Your task to perform on an android device: toggle wifi Image 0: 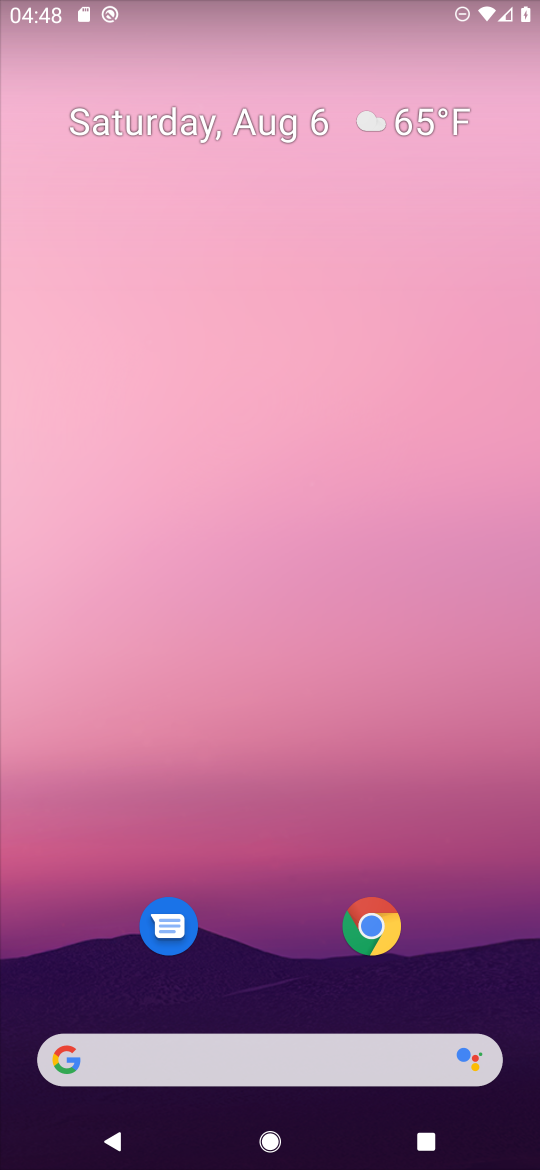
Step 0: drag from (266, 930) to (254, 236)
Your task to perform on an android device: toggle wifi Image 1: 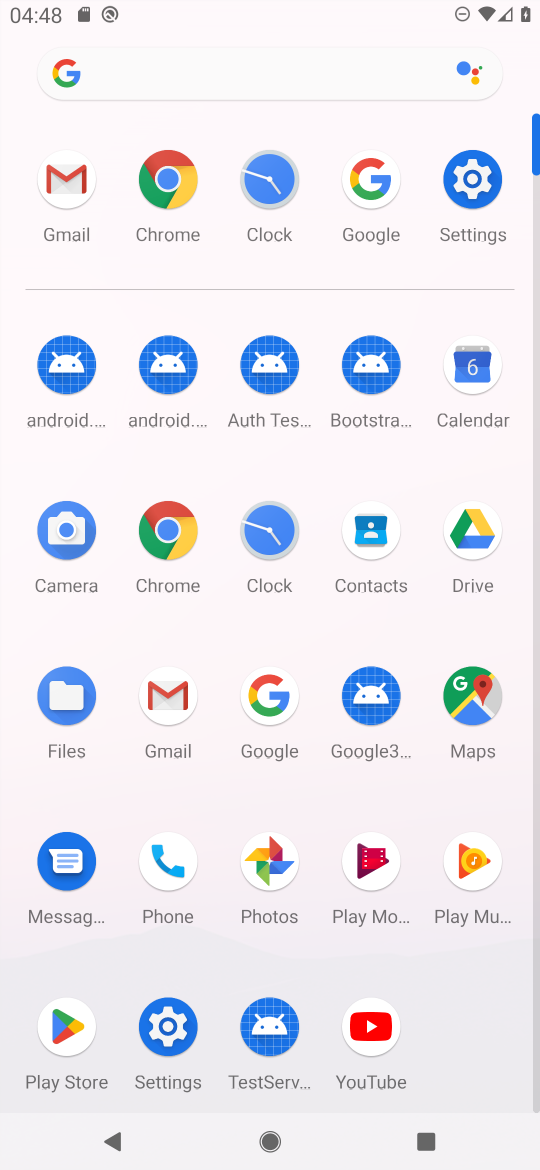
Step 1: click (435, 182)
Your task to perform on an android device: toggle wifi Image 2: 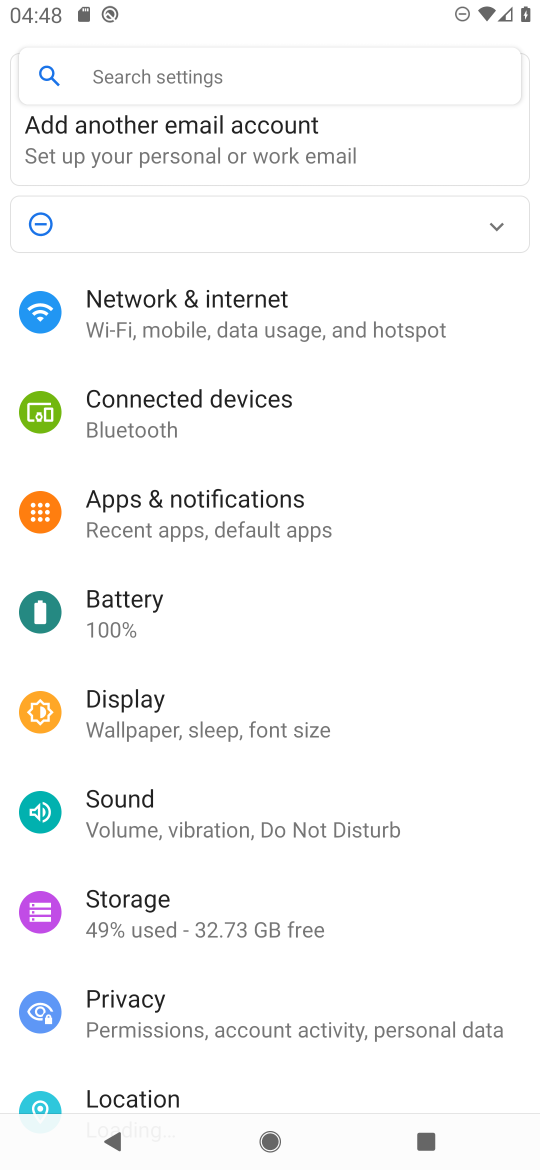
Step 2: click (191, 320)
Your task to perform on an android device: toggle wifi Image 3: 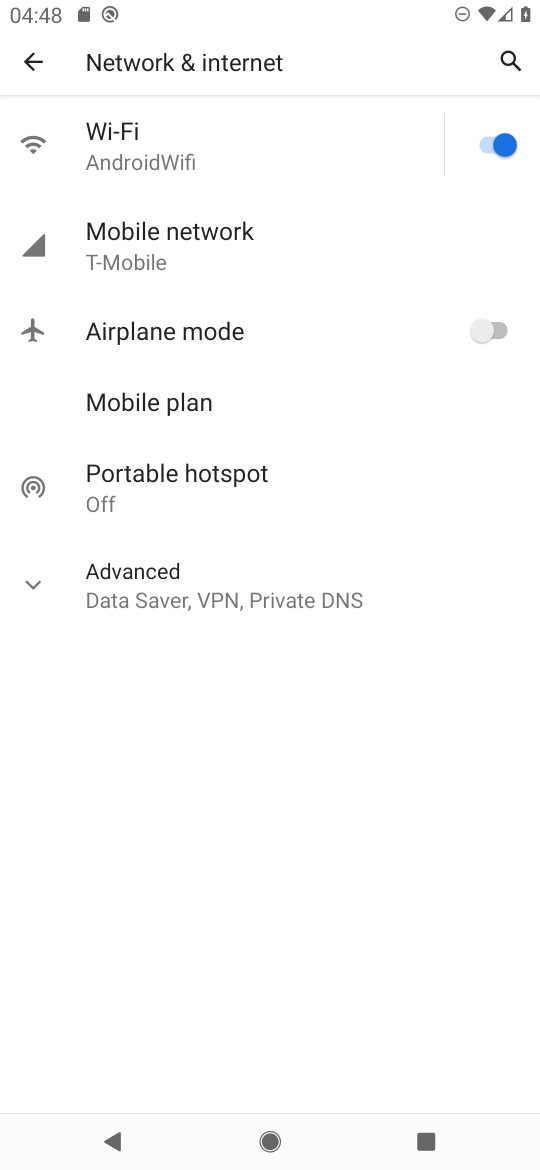
Step 3: click (471, 141)
Your task to perform on an android device: toggle wifi Image 4: 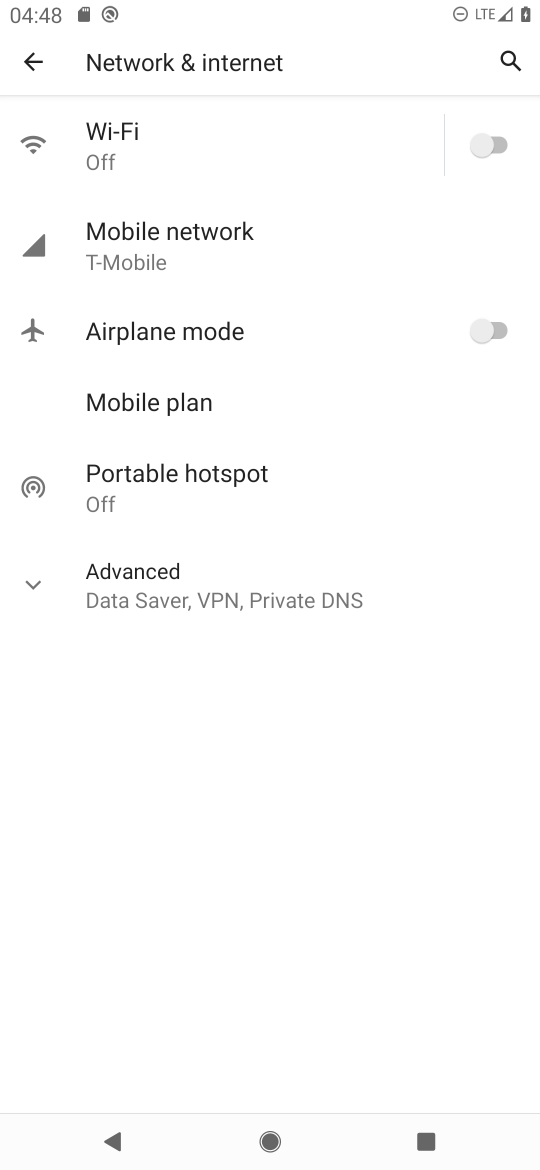
Step 4: task complete